Your task to perform on an android device: check storage Image 0: 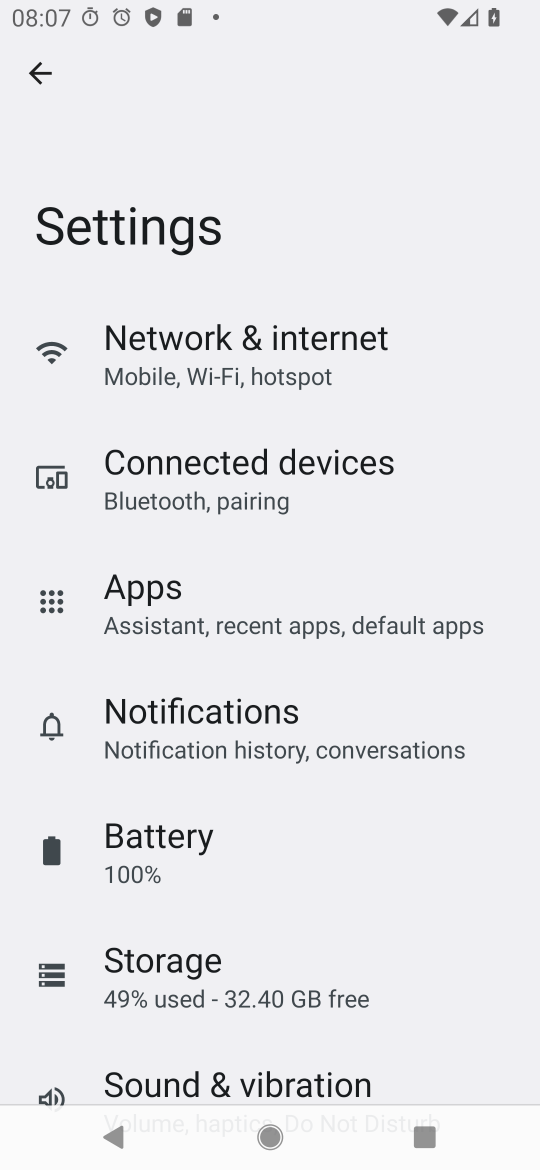
Step 0: click (315, 971)
Your task to perform on an android device: check storage Image 1: 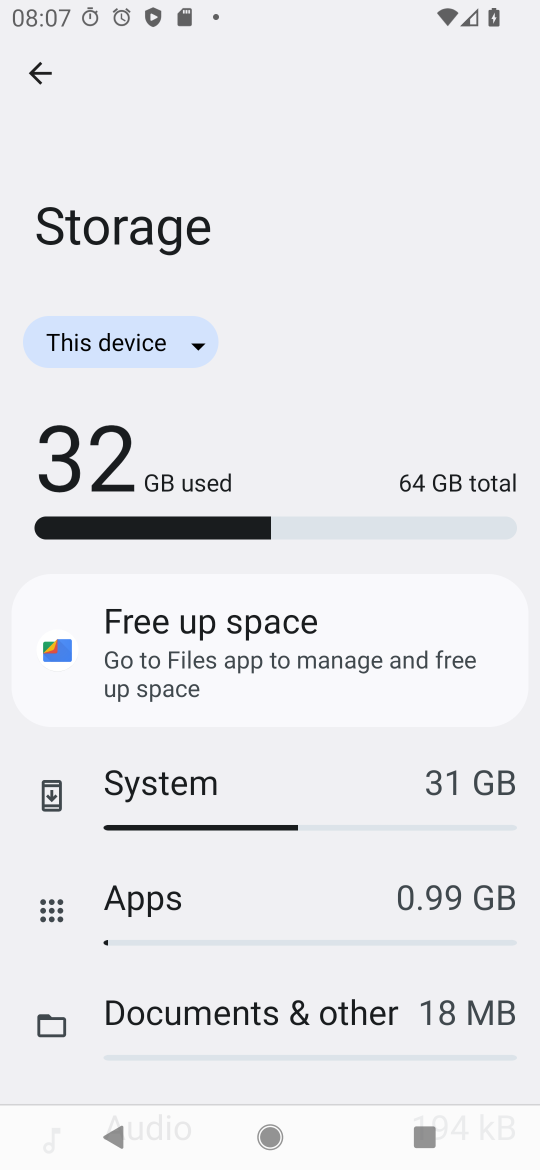
Step 1: task complete